Your task to perform on an android device: create a new album in the google photos Image 0: 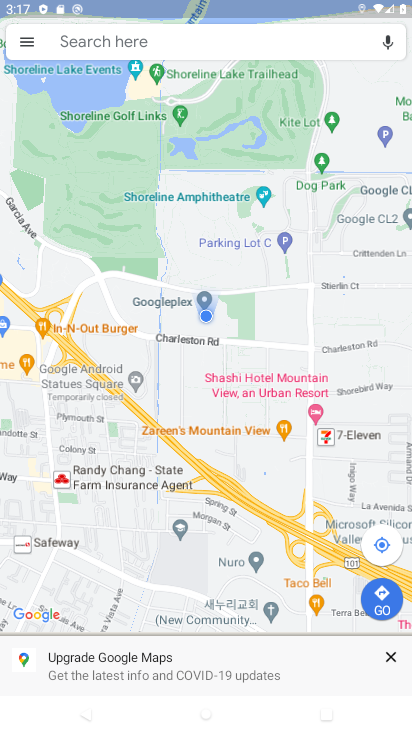
Step 0: press home button
Your task to perform on an android device: create a new album in the google photos Image 1: 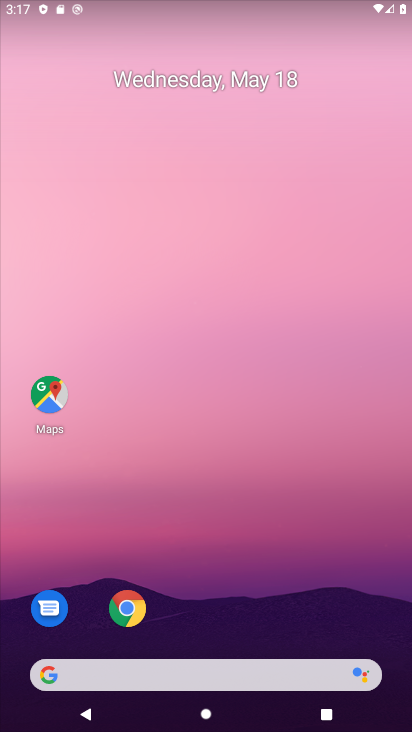
Step 1: drag from (187, 602) to (291, 9)
Your task to perform on an android device: create a new album in the google photos Image 2: 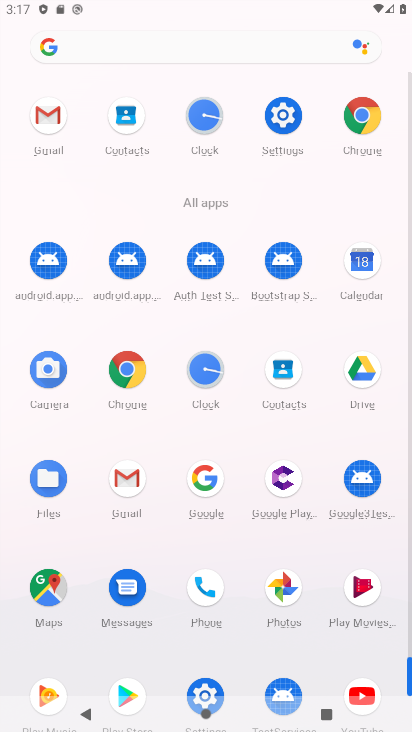
Step 2: click (273, 595)
Your task to perform on an android device: create a new album in the google photos Image 3: 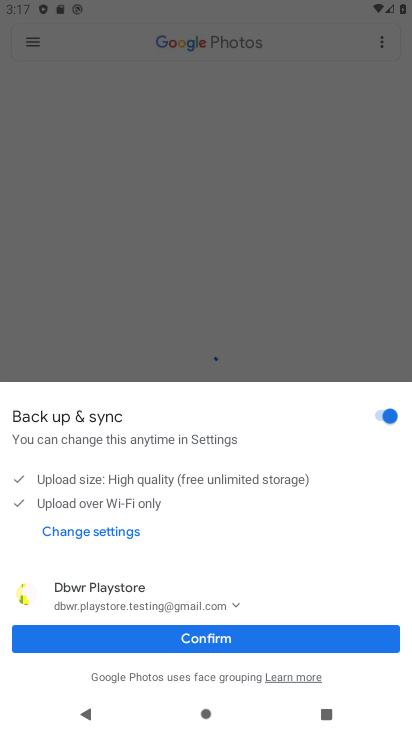
Step 3: click (79, 648)
Your task to perform on an android device: create a new album in the google photos Image 4: 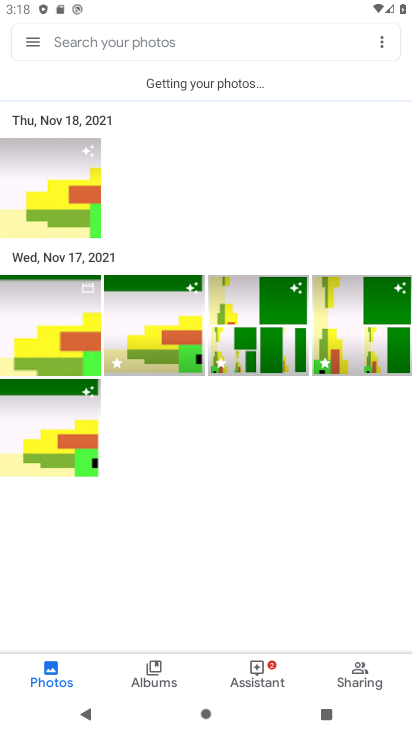
Step 4: click (156, 310)
Your task to perform on an android device: create a new album in the google photos Image 5: 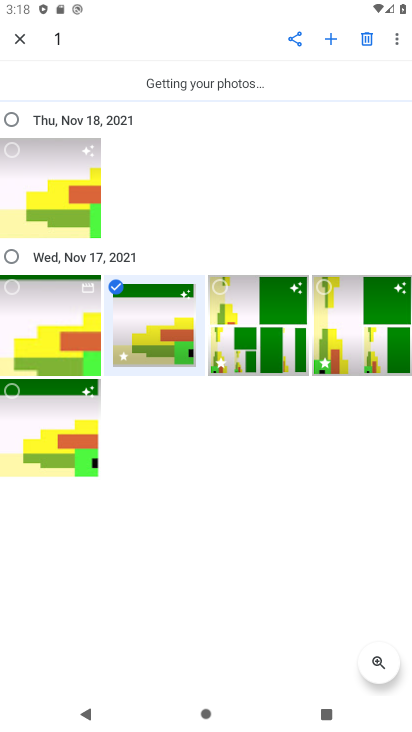
Step 5: click (276, 320)
Your task to perform on an android device: create a new album in the google photos Image 6: 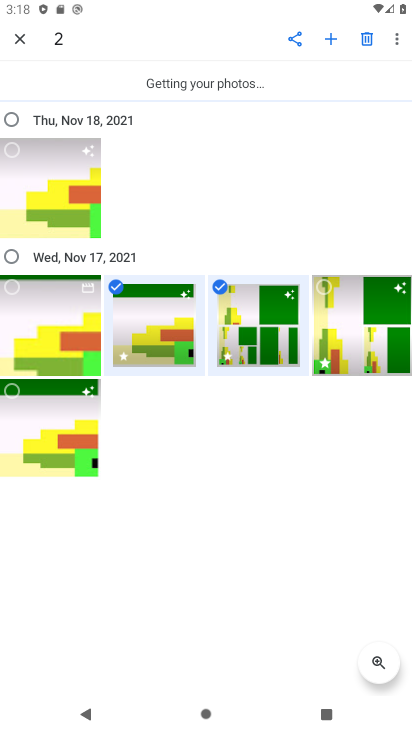
Step 6: click (335, 48)
Your task to perform on an android device: create a new album in the google photos Image 7: 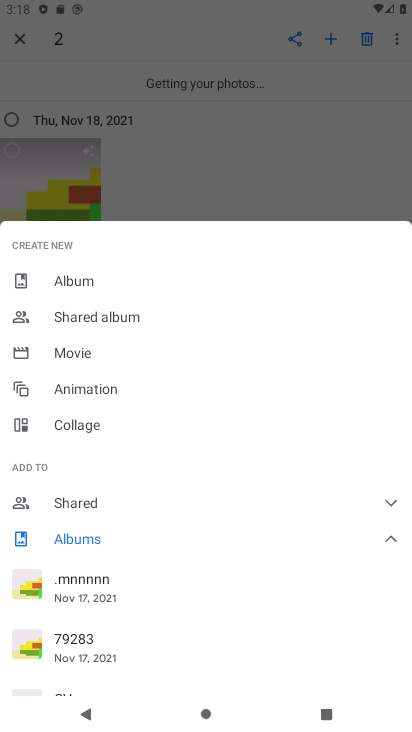
Step 7: click (92, 289)
Your task to perform on an android device: create a new album in the google photos Image 8: 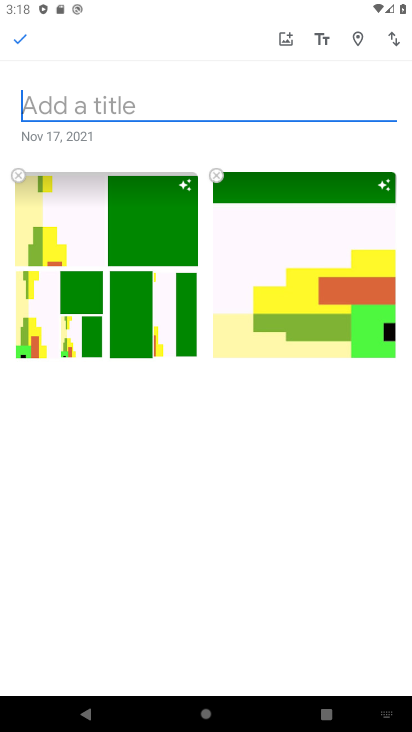
Step 8: type "ko"
Your task to perform on an android device: create a new album in the google photos Image 9: 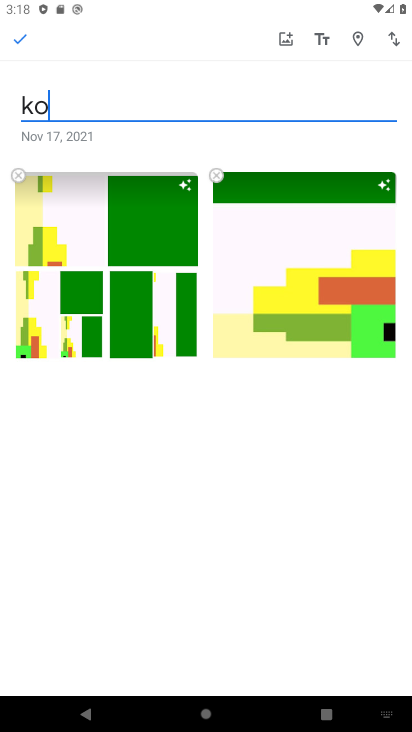
Step 9: click (30, 35)
Your task to perform on an android device: create a new album in the google photos Image 10: 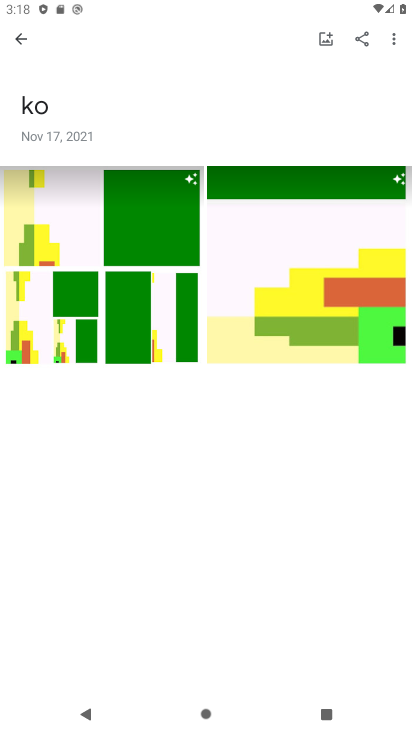
Step 10: task complete